Your task to perform on an android device: open device folders in google photos Image 0: 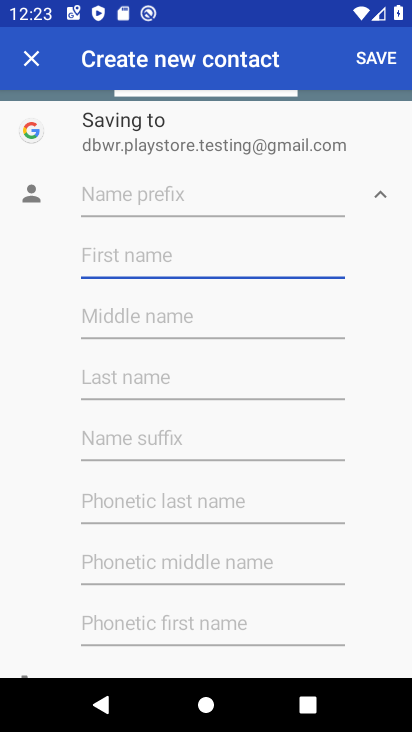
Step 0: press home button
Your task to perform on an android device: open device folders in google photos Image 1: 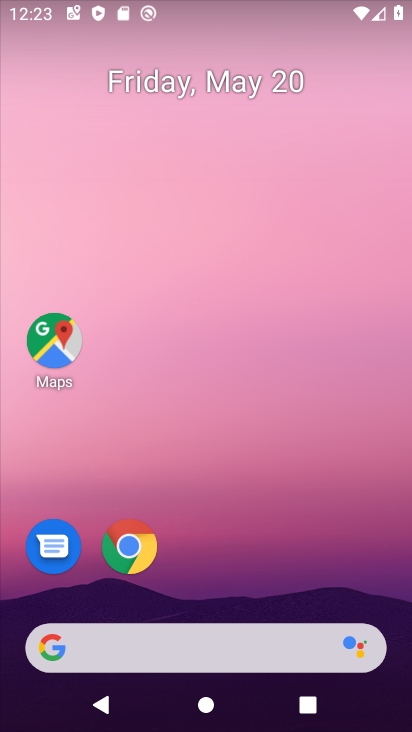
Step 1: drag from (247, 548) to (268, 27)
Your task to perform on an android device: open device folders in google photos Image 2: 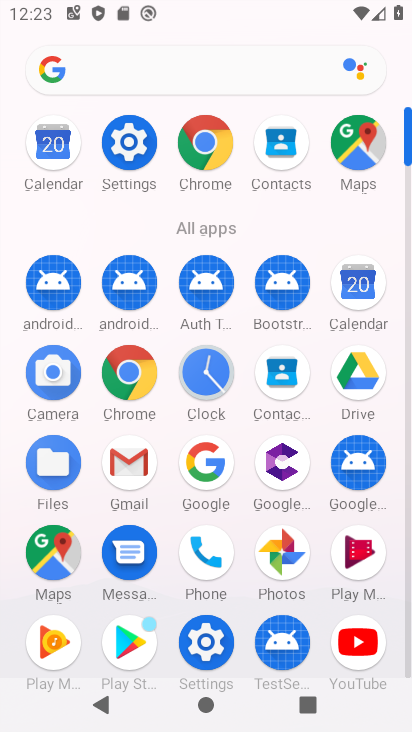
Step 2: click (283, 548)
Your task to perform on an android device: open device folders in google photos Image 3: 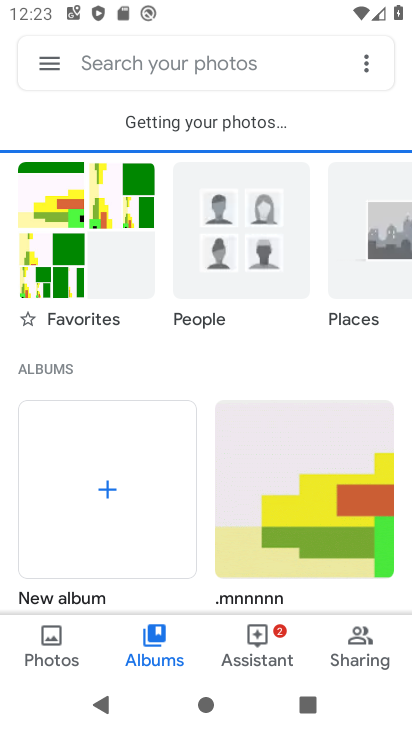
Step 3: click (46, 60)
Your task to perform on an android device: open device folders in google photos Image 4: 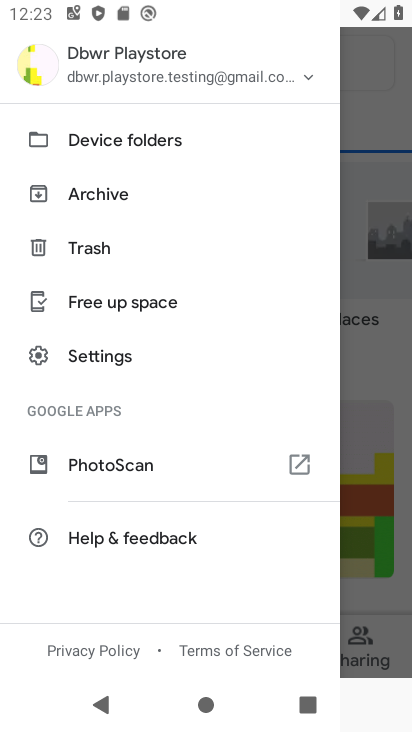
Step 4: click (90, 138)
Your task to perform on an android device: open device folders in google photos Image 5: 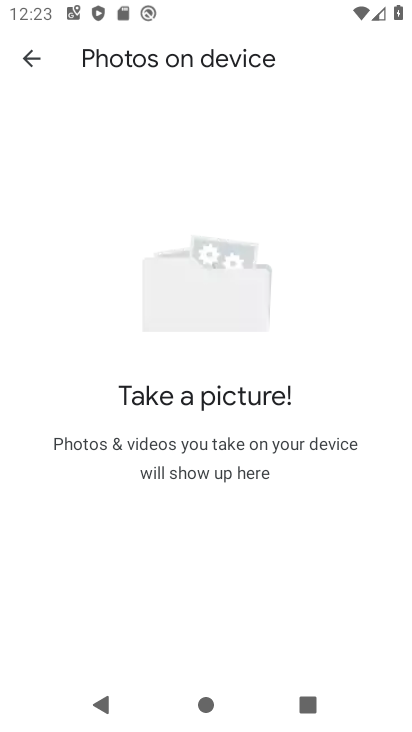
Step 5: task complete